Your task to perform on an android device: Open Amazon Image 0: 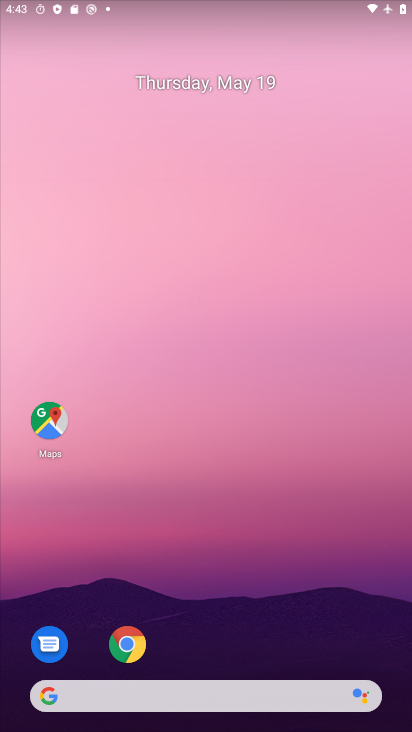
Step 0: click (109, 648)
Your task to perform on an android device: Open Amazon Image 1: 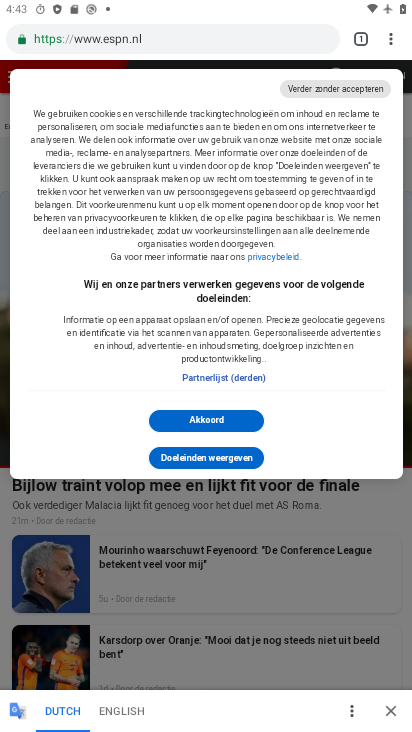
Step 1: click (362, 36)
Your task to perform on an android device: Open Amazon Image 2: 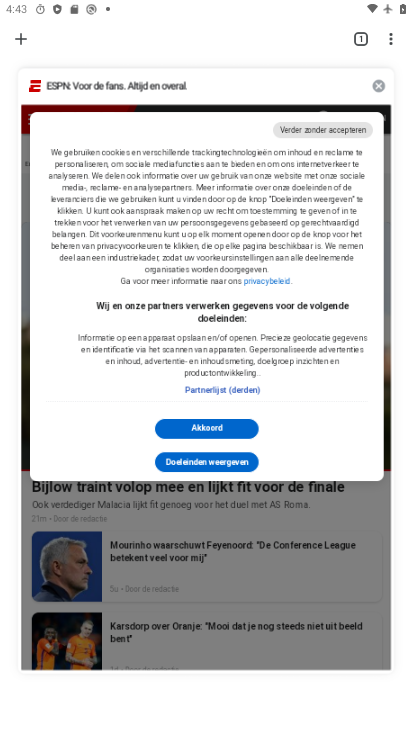
Step 2: click (375, 88)
Your task to perform on an android device: Open Amazon Image 3: 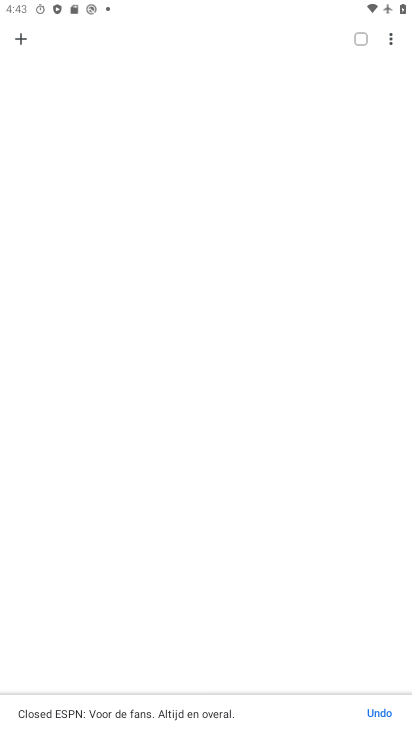
Step 3: click (21, 38)
Your task to perform on an android device: Open Amazon Image 4: 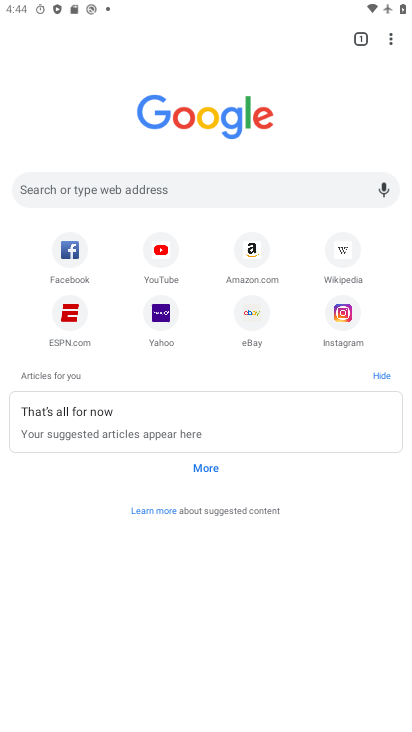
Step 4: click (227, 254)
Your task to perform on an android device: Open Amazon Image 5: 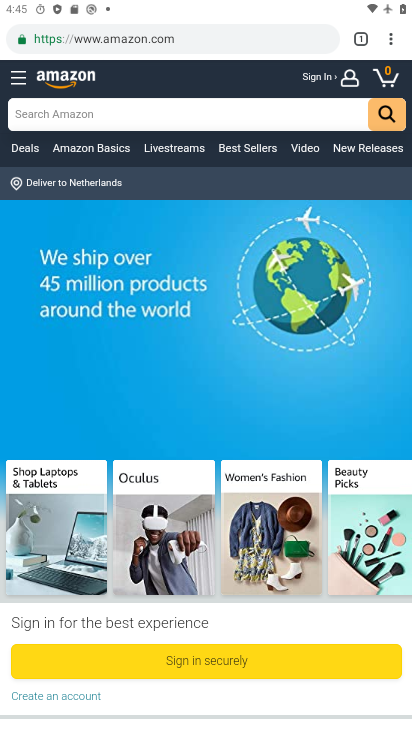
Step 5: task complete